Your task to perform on an android device: check google app version Image 0: 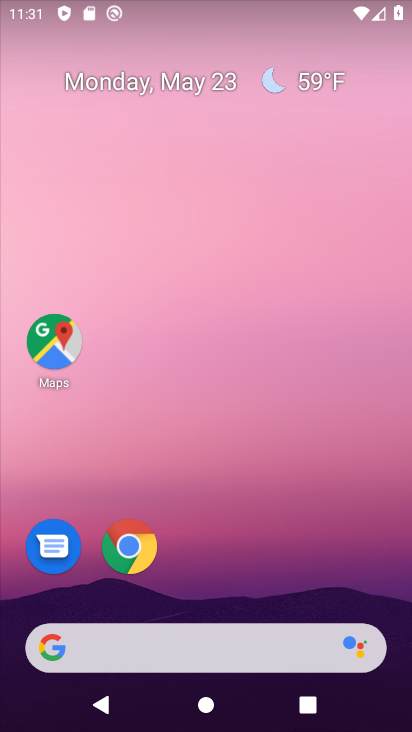
Step 0: drag from (218, 518) to (334, 84)
Your task to perform on an android device: check google app version Image 1: 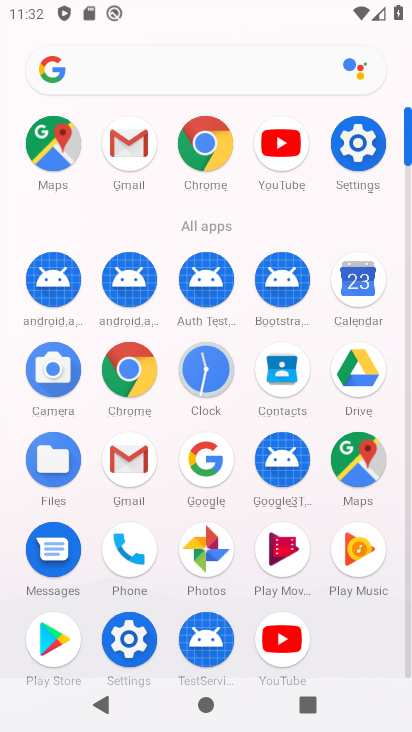
Step 1: click (188, 465)
Your task to perform on an android device: check google app version Image 2: 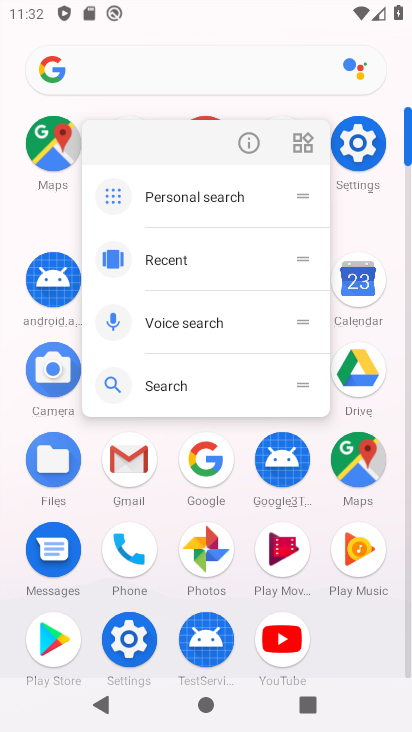
Step 2: click (240, 151)
Your task to perform on an android device: check google app version Image 3: 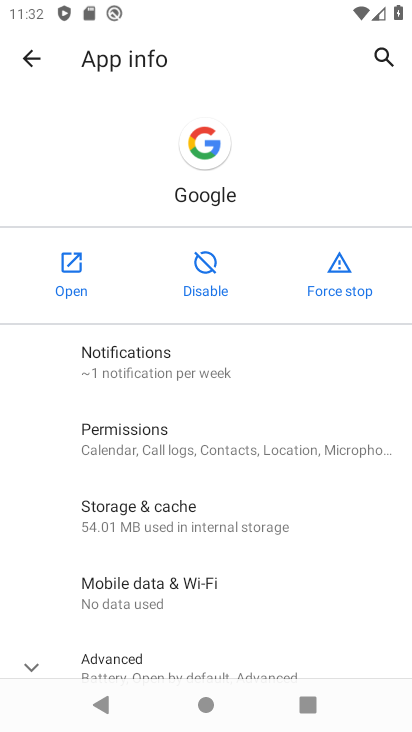
Step 3: drag from (228, 523) to (255, 313)
Your task to perform on an android device: check google app version Image 4: 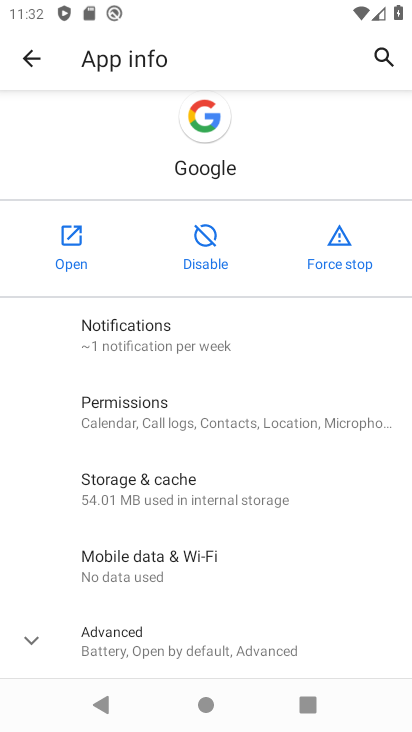
Step 4: click (68, 245)
Your task to perform on an android device: check google app version Image 5: 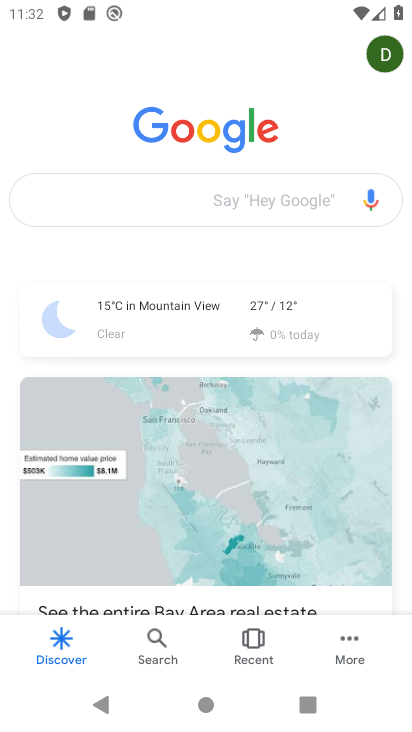
Step 5: click (330, 644)
Your task to perform on an android device: check google app version Image 6: 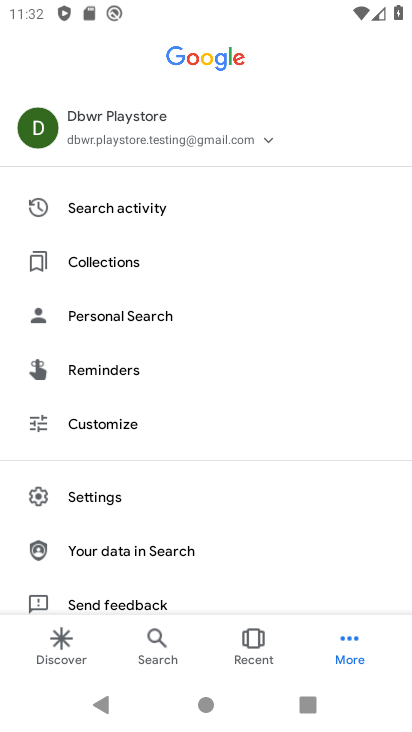
Step 6: drag from (227, 533) to (307, 172)
Your task to perform on an android device: check google app version Image 7: 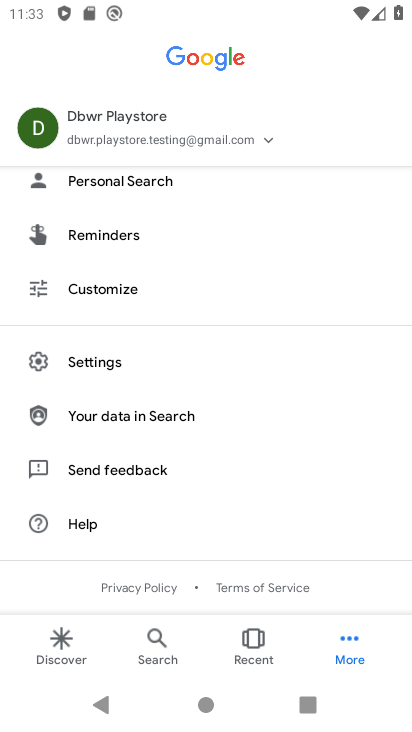
Step 7: drag from (287, 365) to (303, 253)
Your task to perform on an android device: check google app version Image 8: 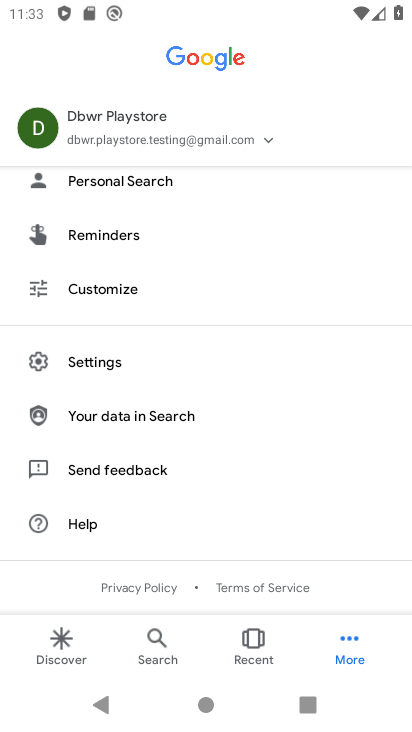
Step 8: click (136, 361)
Your task to perform on an android device: check google app version Image 9: 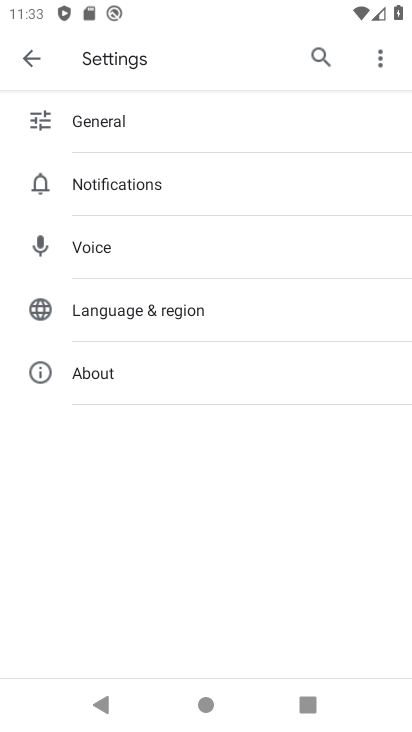
Step 9: click (136, 118)
Your task to perform on an android device: check google app version Image 10: 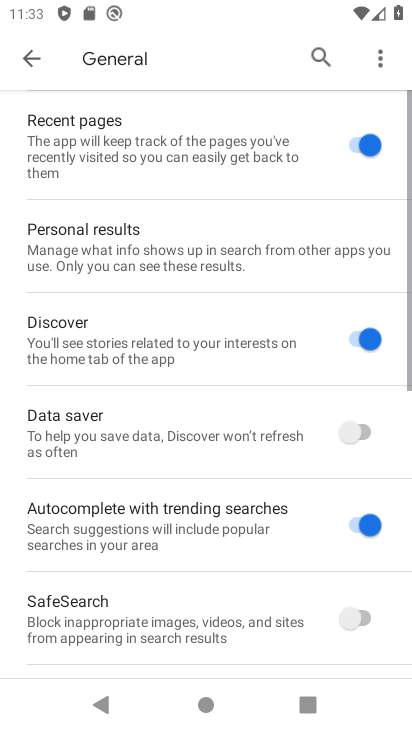
Step 10: click (29, 71)
Your task to perform on an android device: check google app version Image 11: 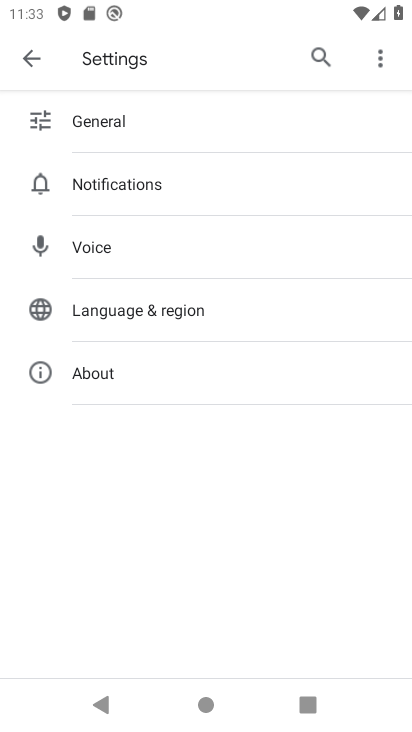
Step 11: click (190, 378)
Your task to perform on an android device: check google app version Image 12: 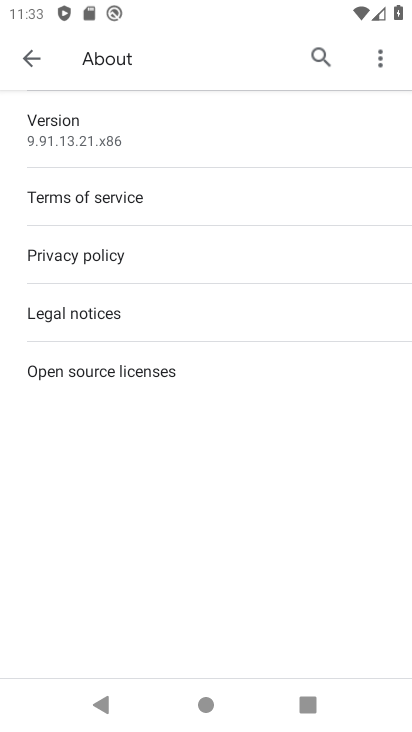
Step 12: click (117, 138)
Your task to perform on an android device: check google app version Image 13: 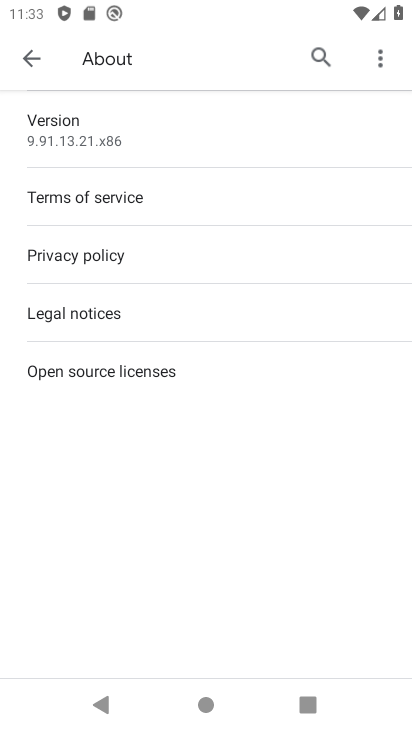
Step 13: task complete